Your task to perform on an android device: all mails in gmail Image 0: 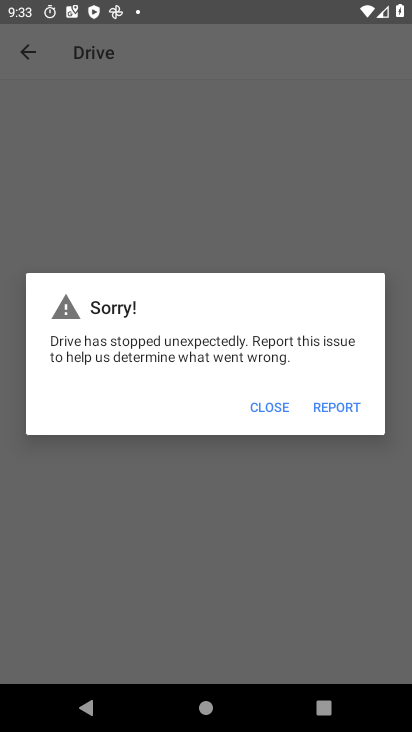
Step 0: press home button
Your task to perform on an android device: all mails in gmail Image 1: 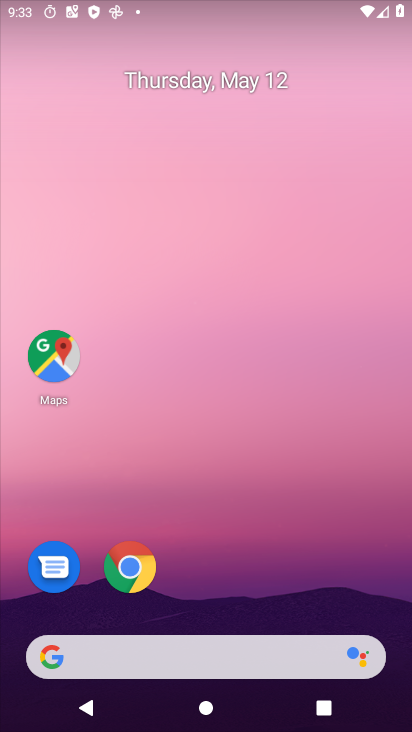
Step 1: drag from (275, 644) to (294, 134)
Your task to perform on an android device: all mails in gmail Image 2: 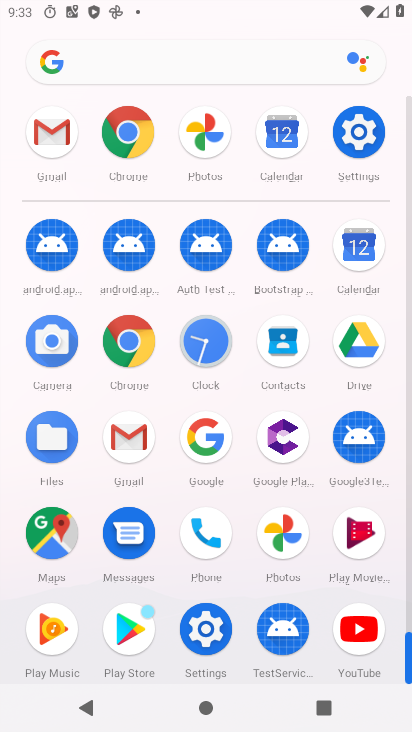
Step 2: click (121, 442)
Your task to perform on an android device: all mails in gmail Image 3: 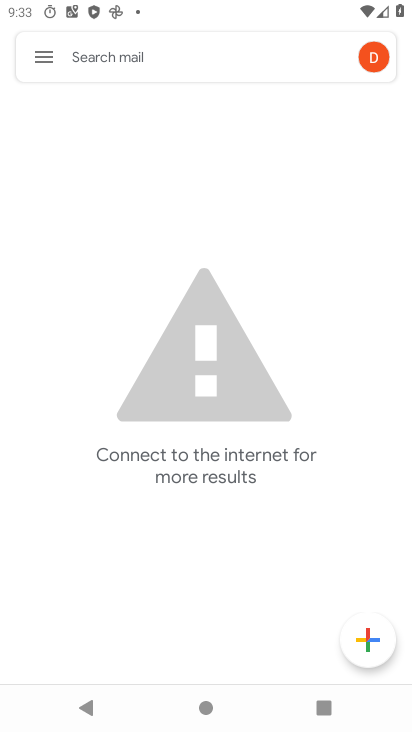
Step 3: click (44, 66)
Your task to perform on an android device: all mails in gmail Image 4: 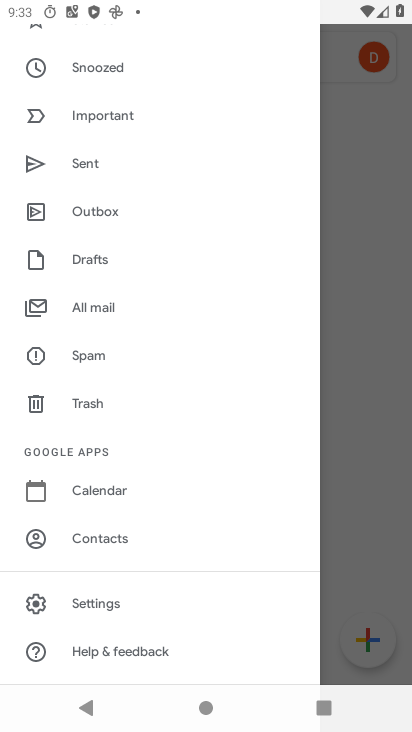
Step 4: click (106, 306)
Your task to perform on an android device: all mails in gmail Image 5: 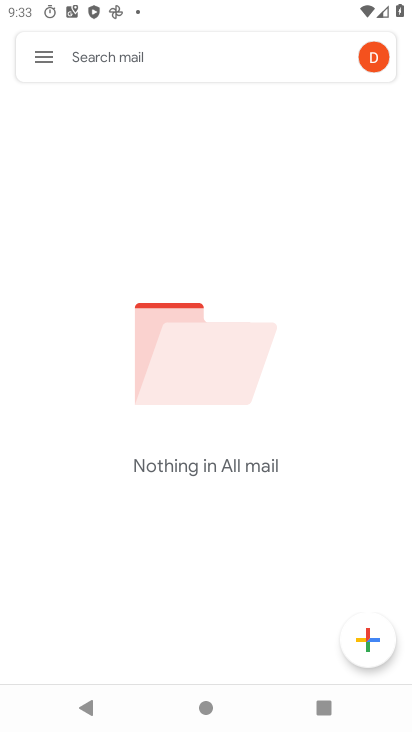
Step 5: task complete